Your task to perform on an android device: empty trash in the gmail app Image 0: 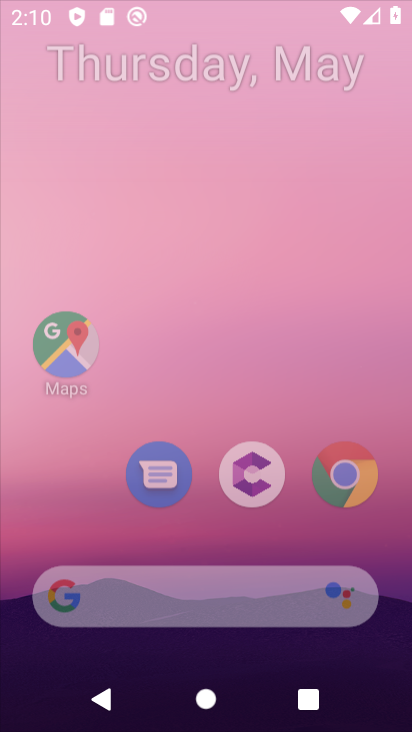
Step 0: press home button
Your task to perform on an android device: empty trash in the gmail app Image 1: 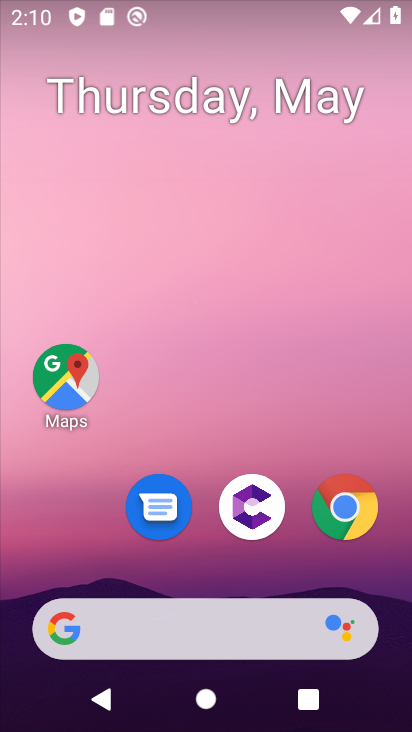
Step 1: drag from (300, 557) to (281, 204)
Your task to perform on an android device: empty trash in the gmail app Image 2: 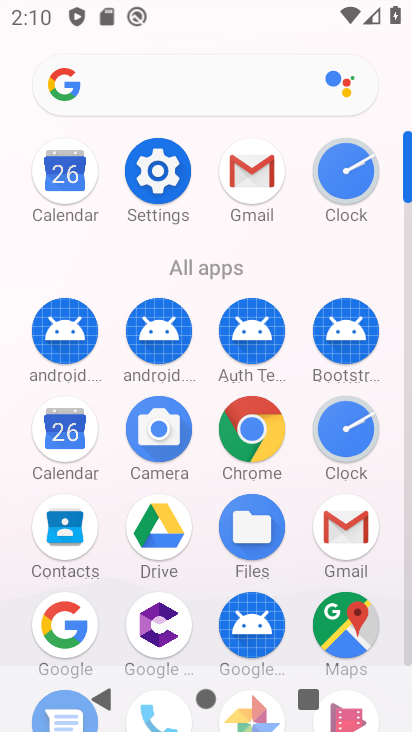
Step 2: click (259, 194)
Your task to perform on an android device: empty trash in the gmail app Image 3: 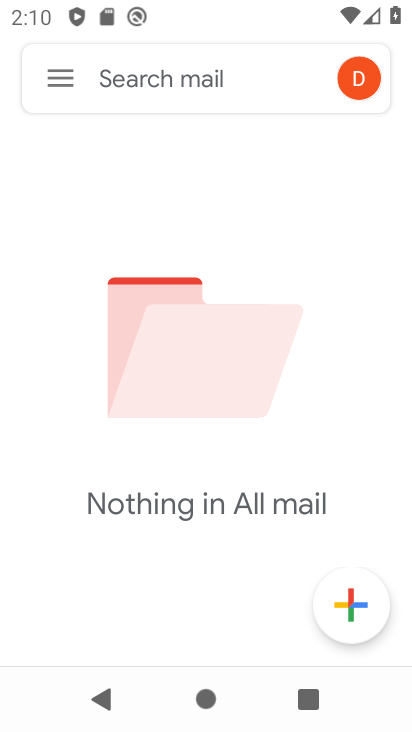
Step 3: click (56, 76)
Your task to perform on an android device: empty trash in the gmail app Image 4: 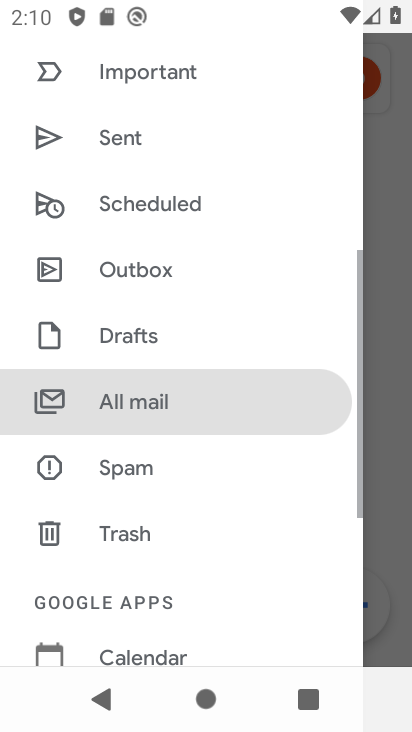
Step 4: click (129, 521)
Your task to perform on an android device: empty trash in the gmail app Image 5: 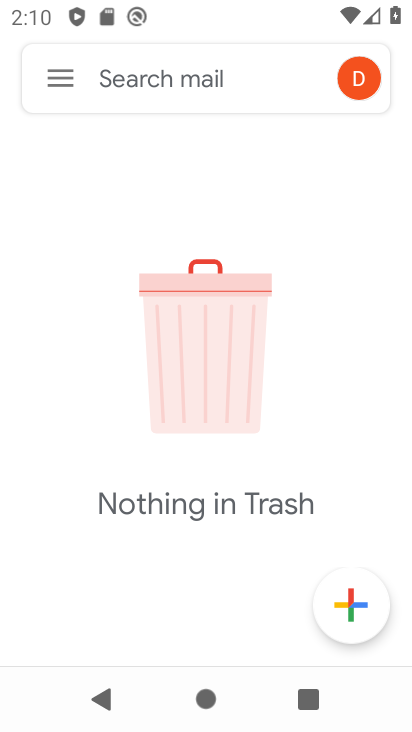
Step 5: task complete